Your task to perform on an android device: find which apps use the phone's location Image 0: 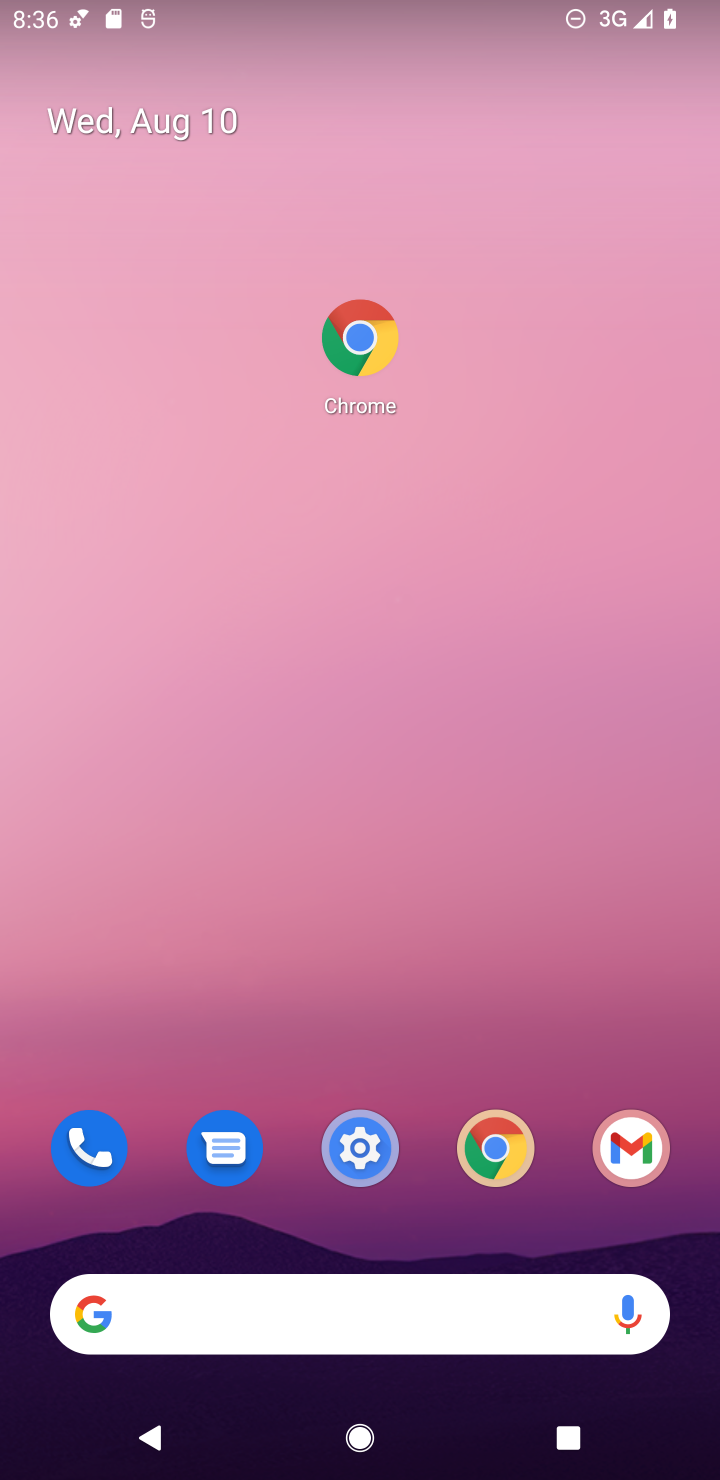
Step 0: click (331, 1179)
Your task to perform on an android device: find which apps use the phone's location Image 1: 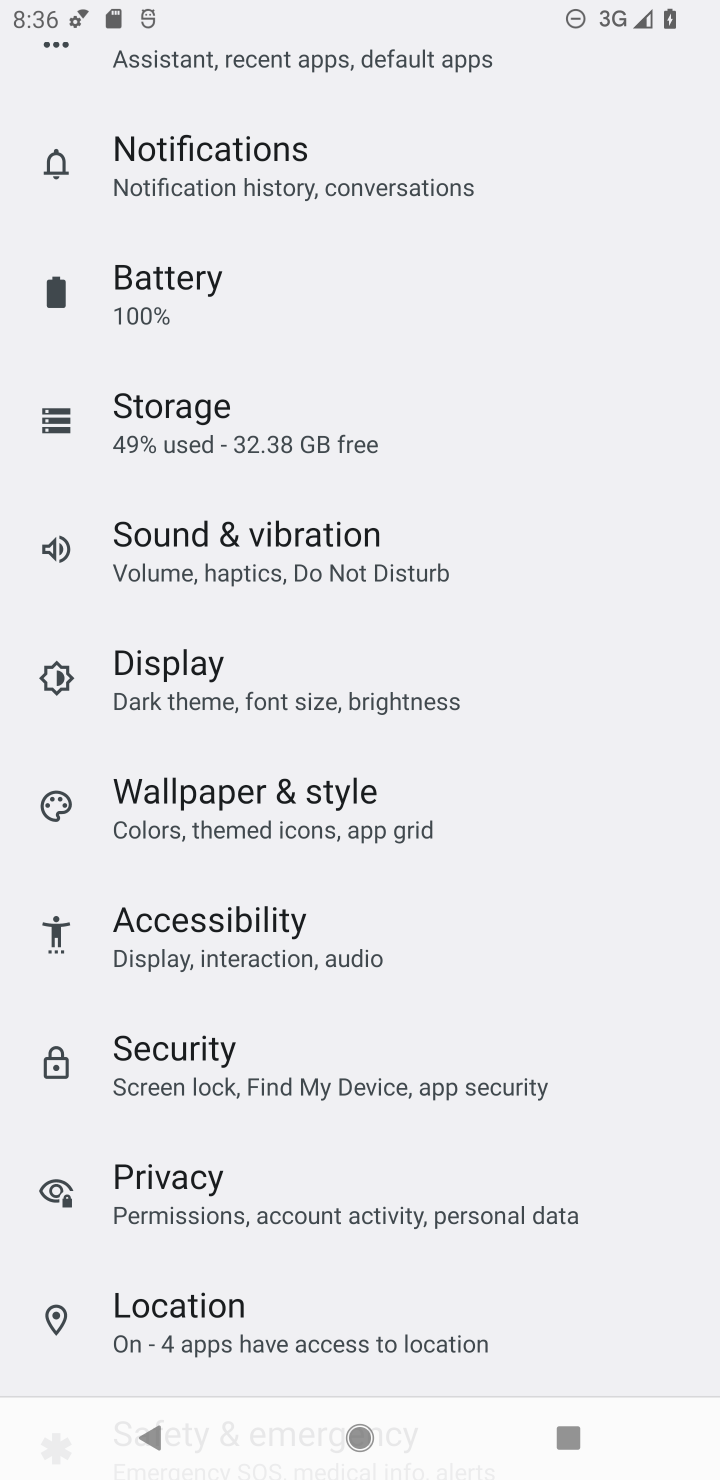
Step 1: click (319, 1340)
Your task to perform on an android device: find which apps use the phone's location Image 2: 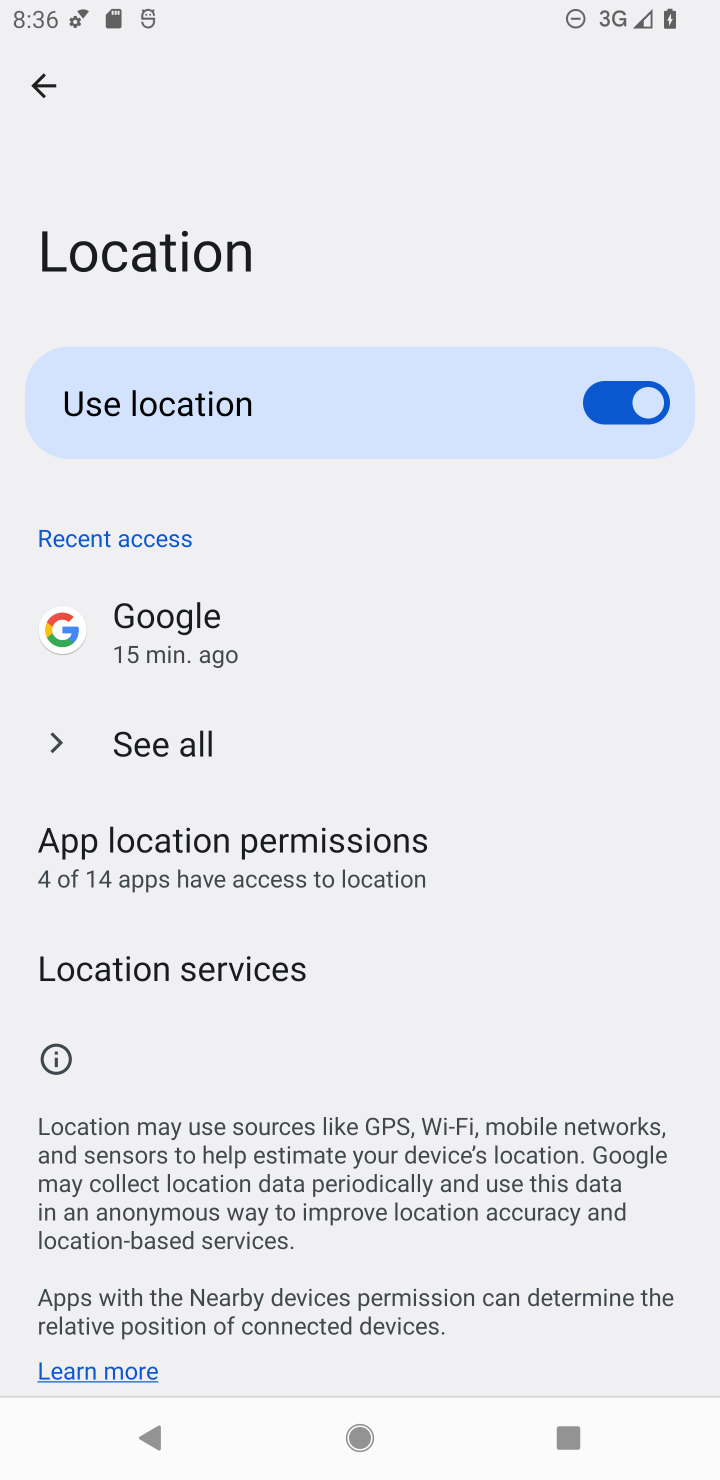
Step 2: click (140, 849)
Your task to perform on an android device: find which apps use the phone's location Image 3: 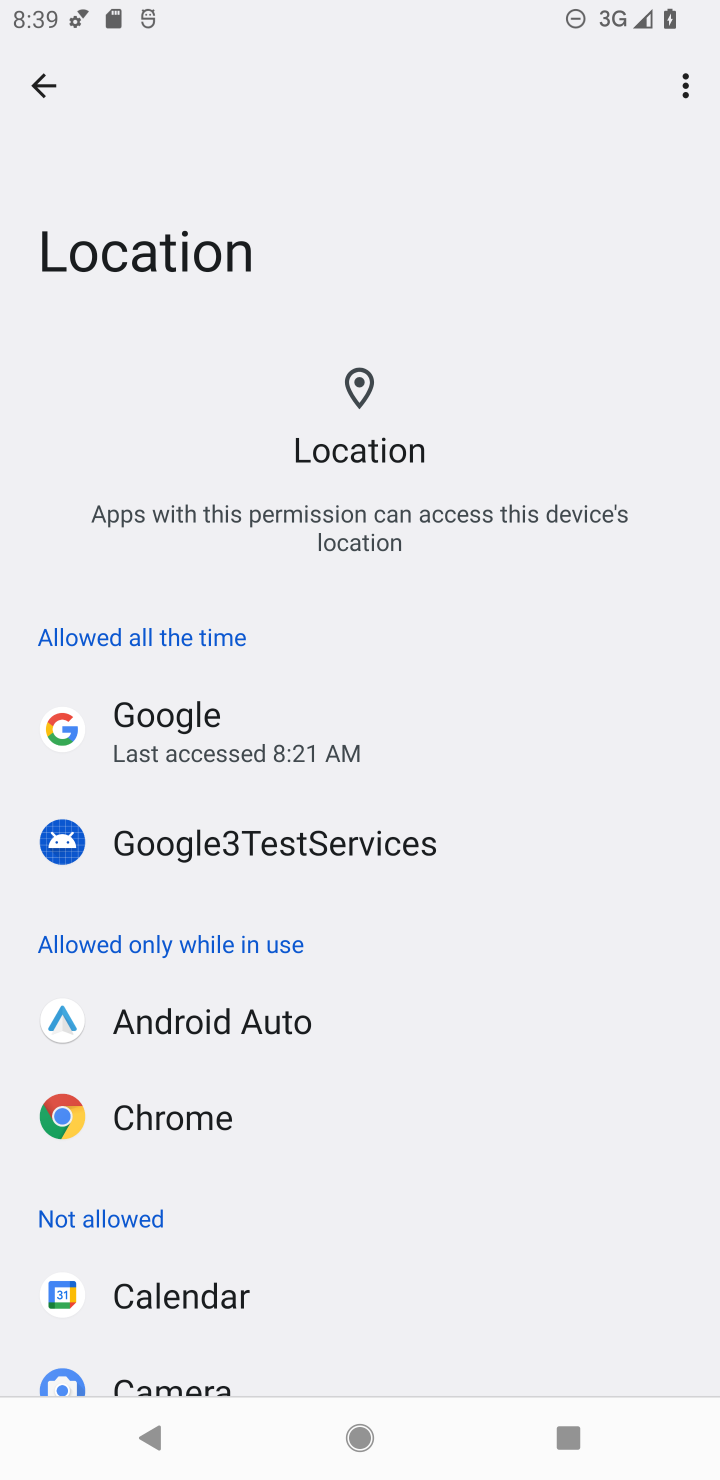
Step 3: task complete